Your task to perform on an android device: open device folders in google photos Image 0: 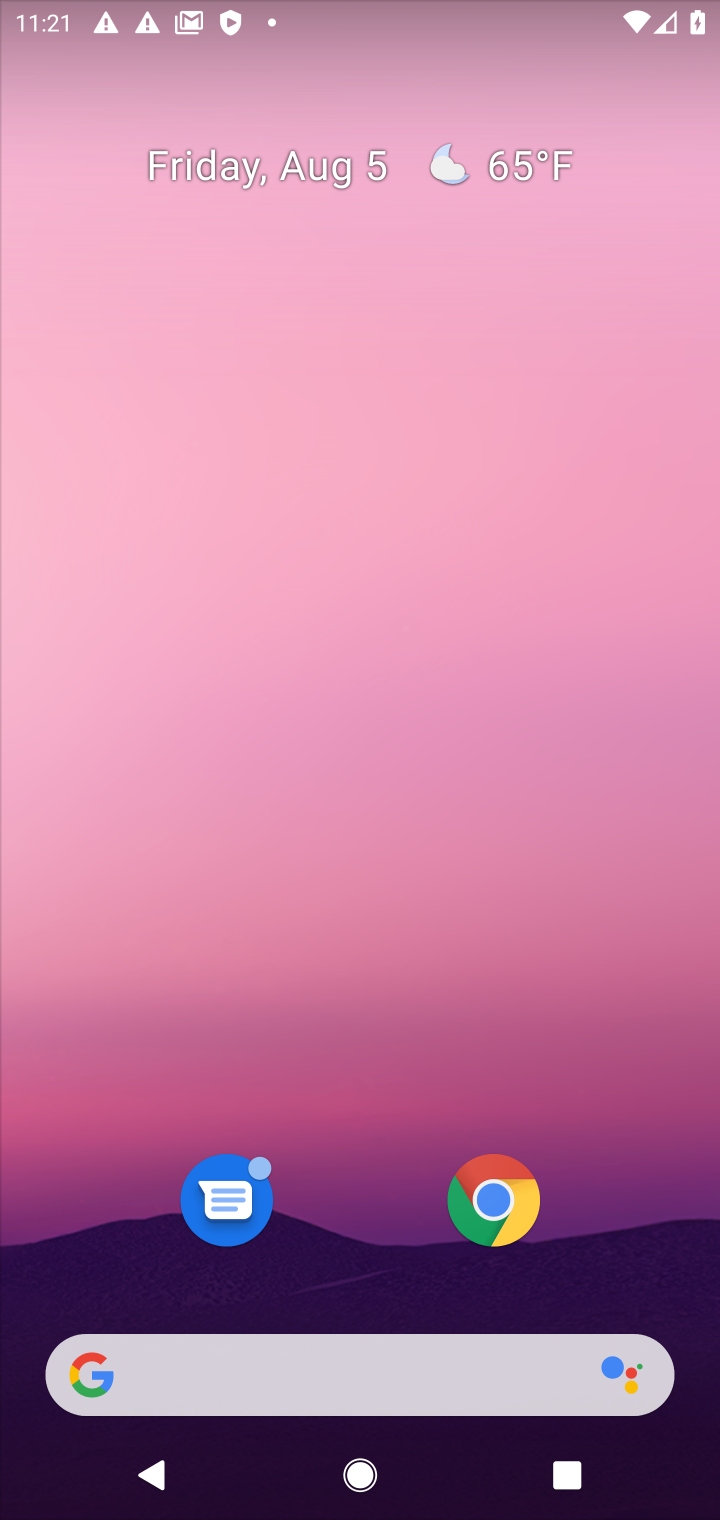
Step 0: drag from (639, 1247) to (623, 206)
Your task to perform on an android device: open device folders in google photos Image 1: 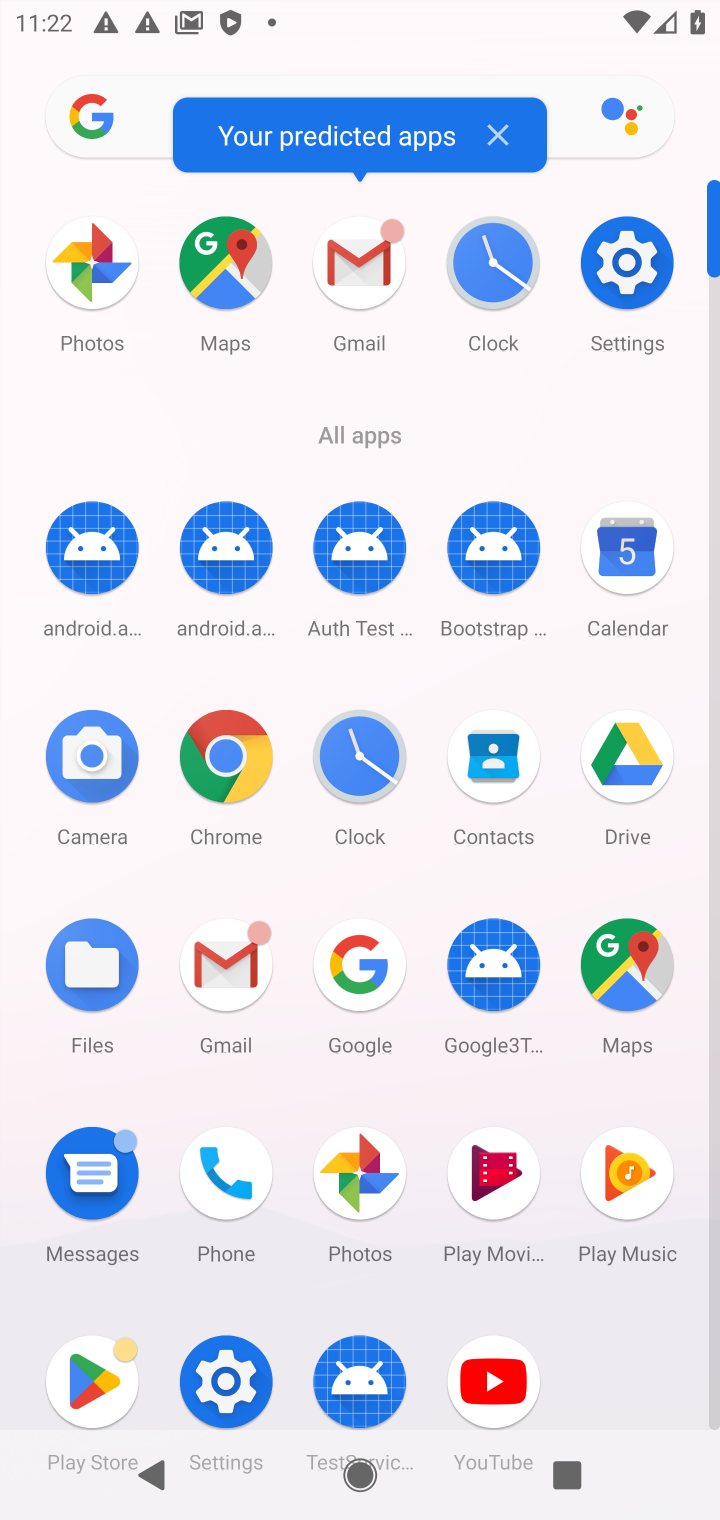
Step 1: click (359, 1174)
Your task to perform on an android device: open device folders in google photos Image 2: 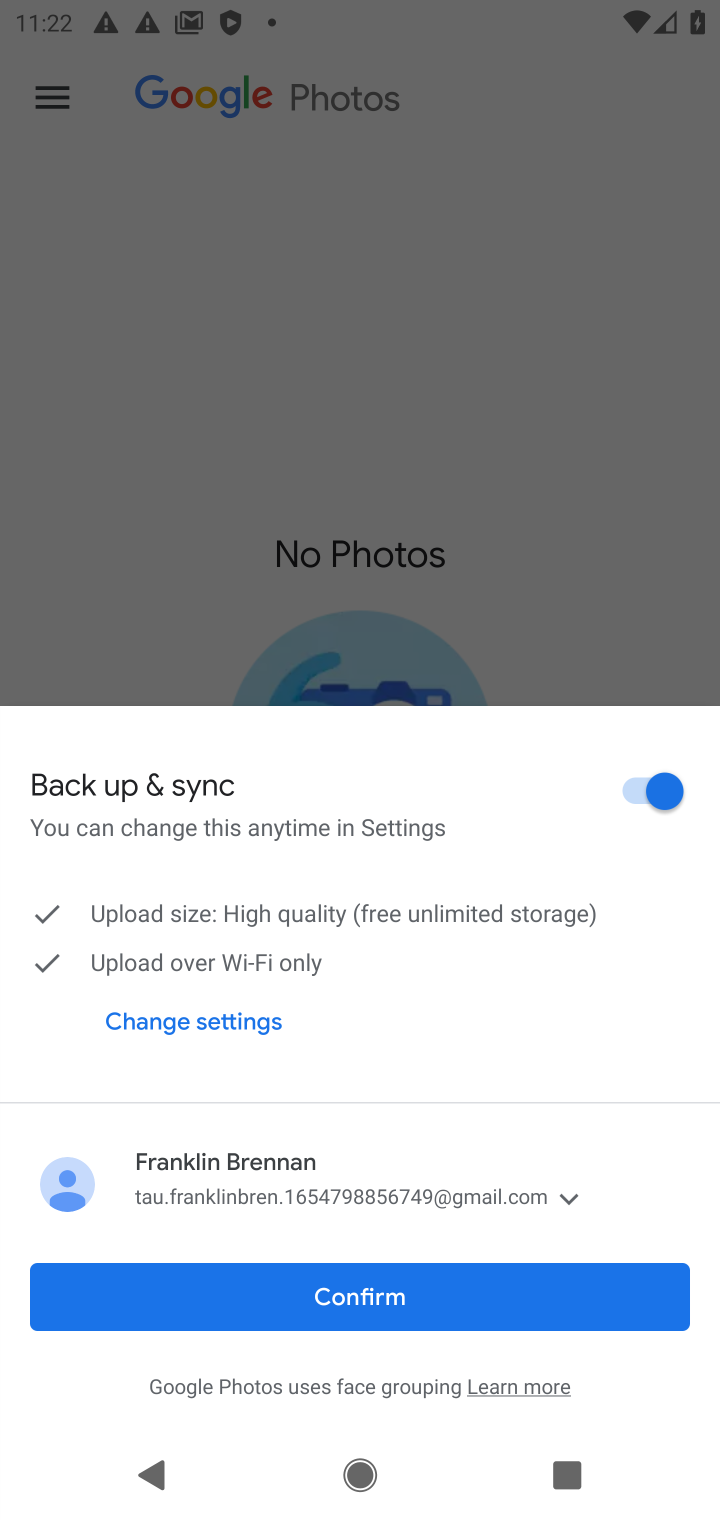
Step 2: click (347, 1304)
Your task to perform on an android device: open device folders in google photos Image 3: 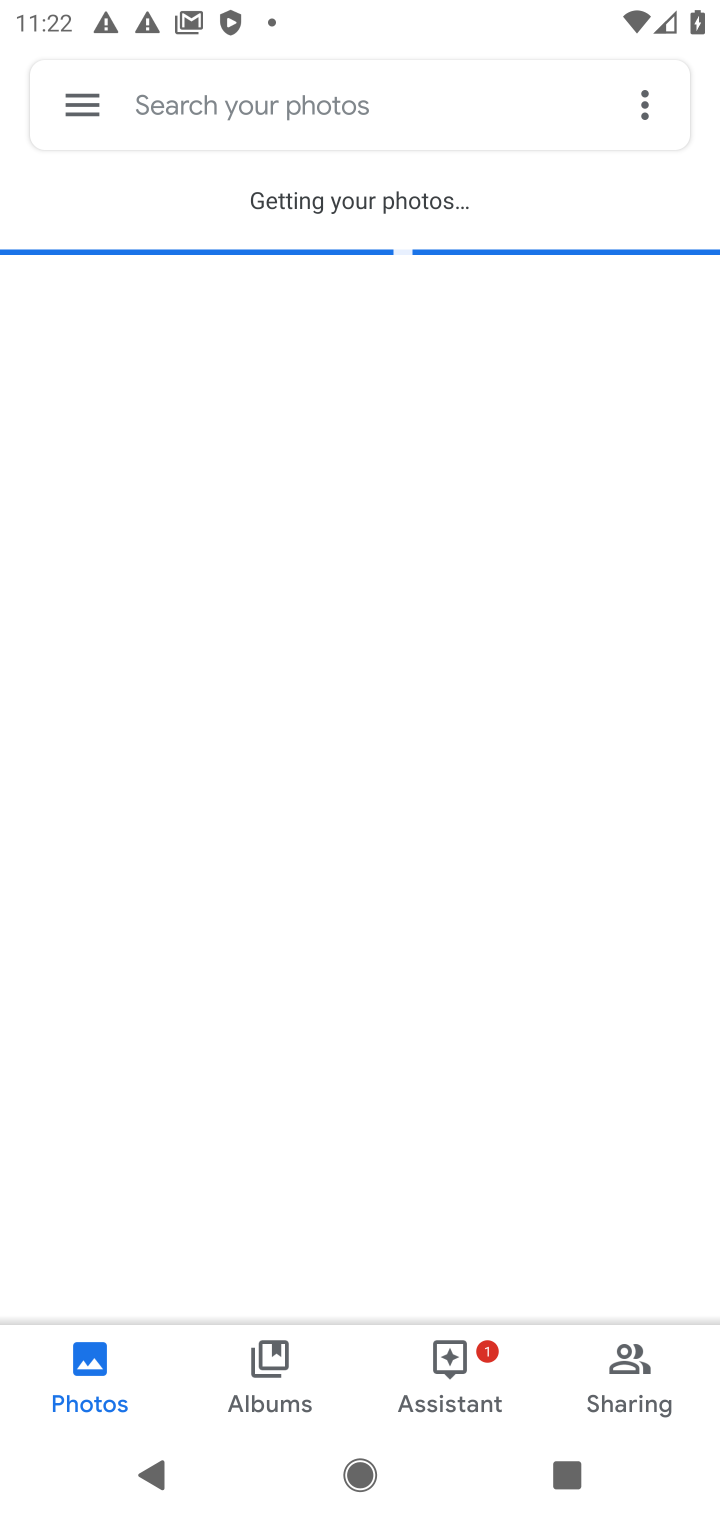
Step 3: click (79, 111)
Your task to perform on an android device: open device folders in google photos Image 4: 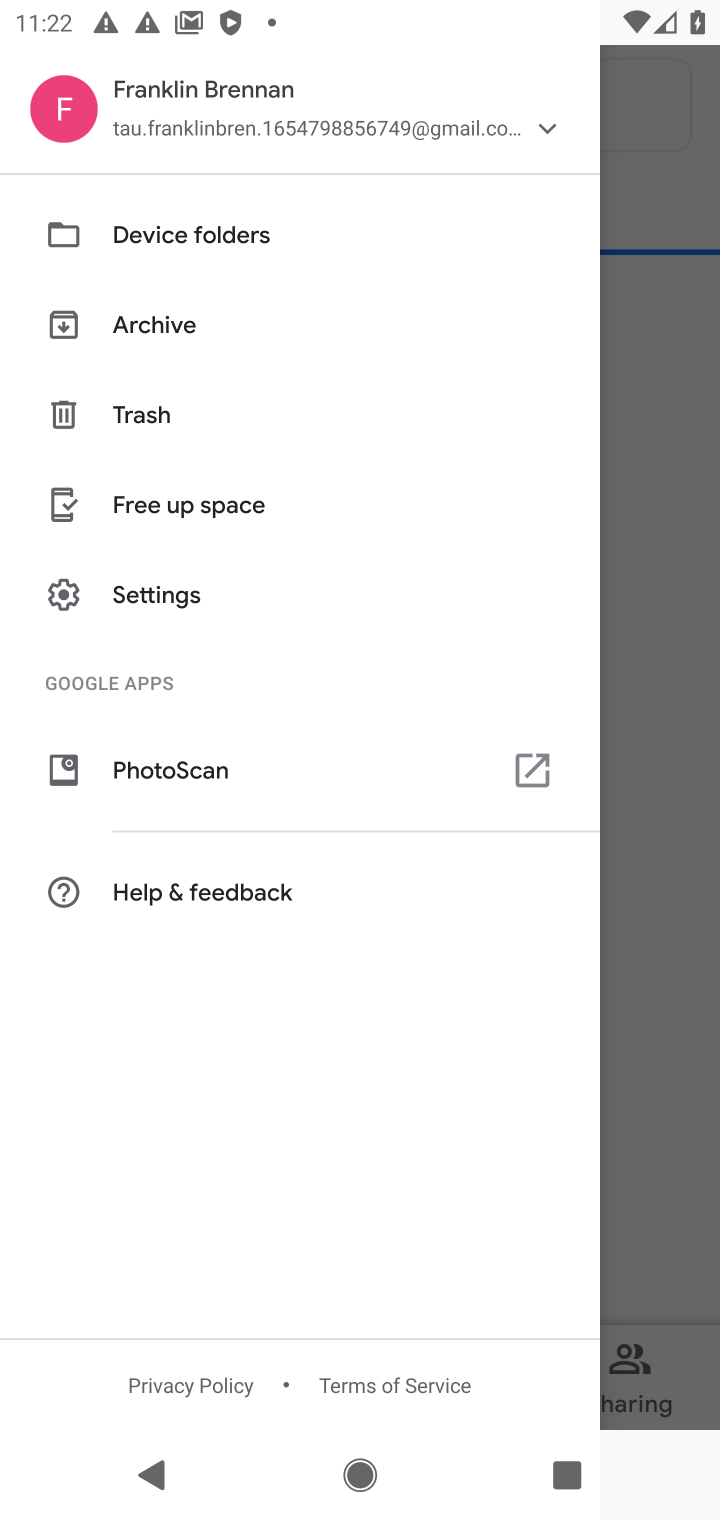
Step 4: click (188, 228)
Your task to perform on an android device: open device folders in google photos Image 5: 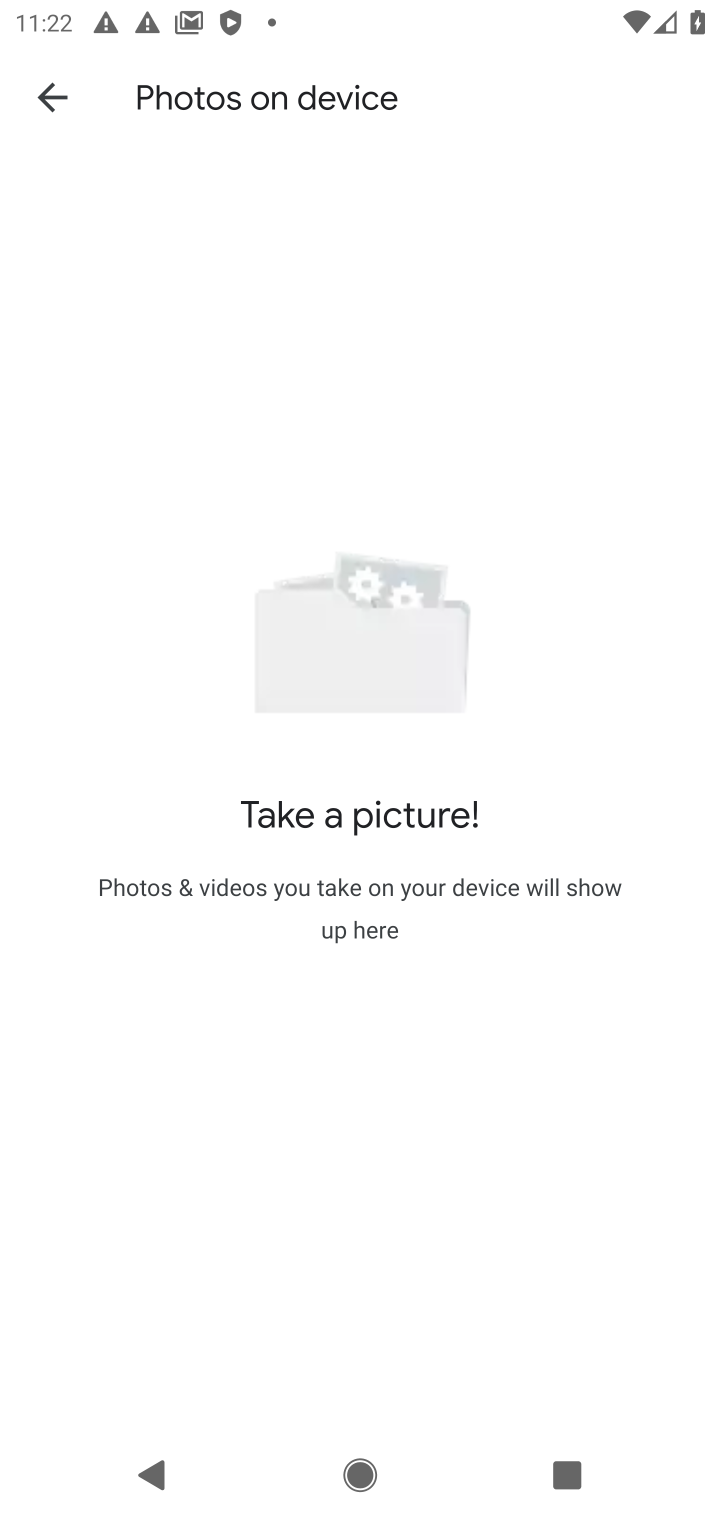
Step 5: task complete